Your task to perform on an android device: Go to notification settings Image 0: 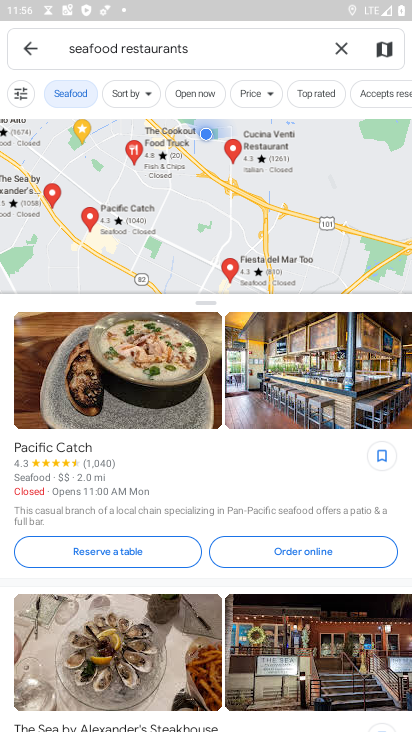
Step 0: press back button
Your task to perform on an android device: Go to notification settings Image 1: 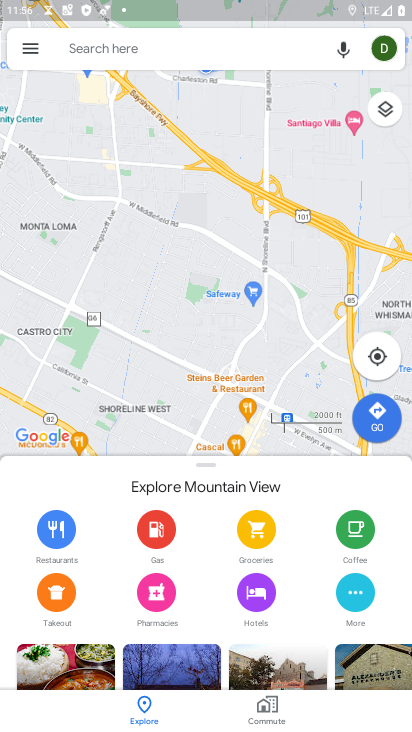
Step 1: press back button
Your task to perform on an android device: Go to notification settings Image 2: 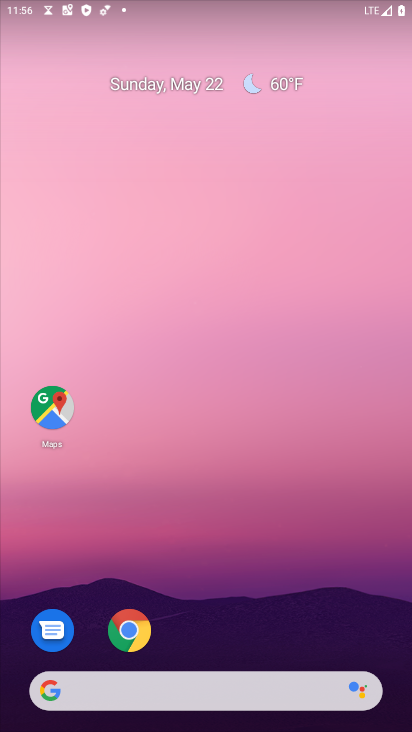
Step 2: drag from (256, 580) to (209, 200)
Your task to perform on an android device: Go to notification settings Image 3: 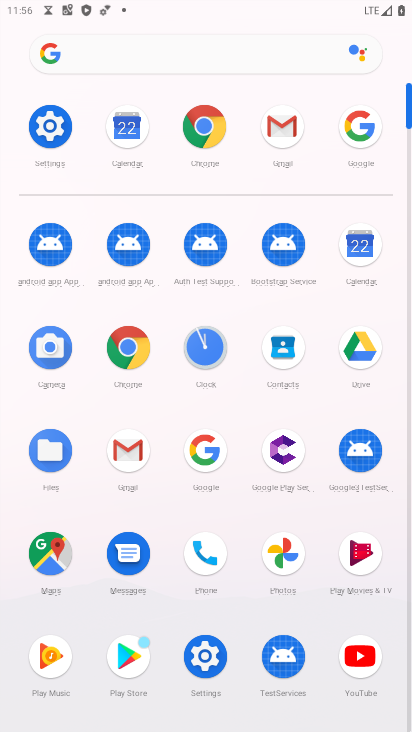
Step 3: click (52, 126)
Your task to perform on an android device: Go to notification settings Image 4: 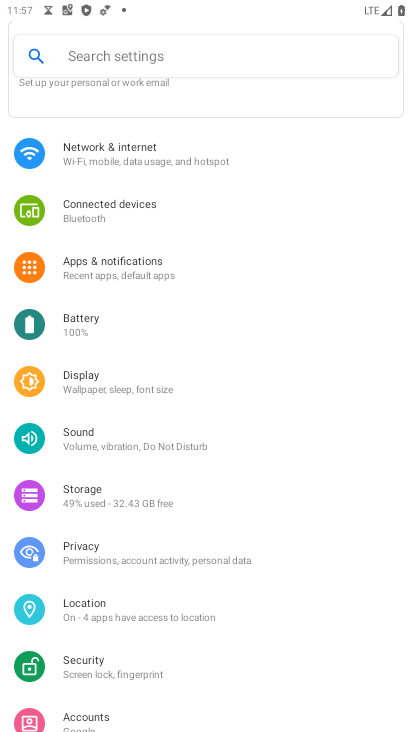
Step 4: click (109, 256)
Your task to perform on an android device: Go to notification settings Image 5: 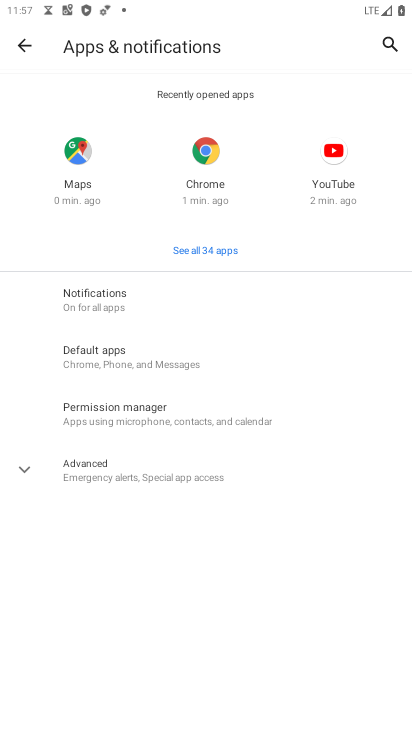
Step 5: click (113, 304)
Your task to perform on an android device: Go to notification settings Image 6: 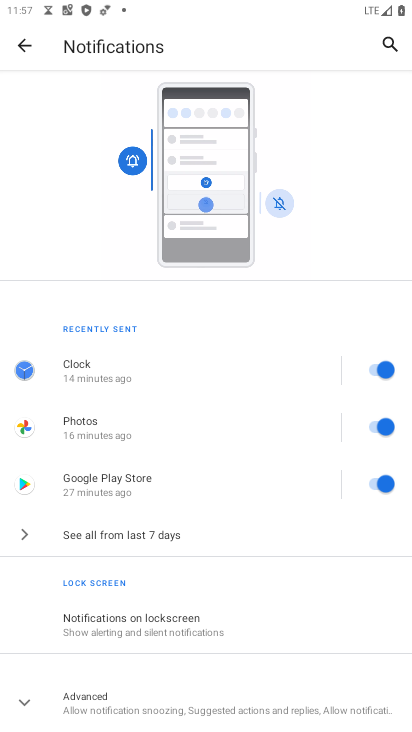
Step 6: task complete